Your task to perform on an android device: Open calendar and show me the second week of next month Image 0: 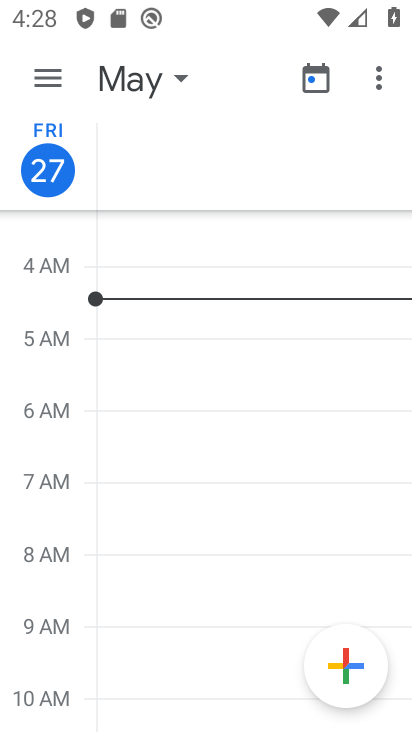
Step 0: press back button
Your task to perform on an android device: Open calendar and show me the second week of next month Image 1: 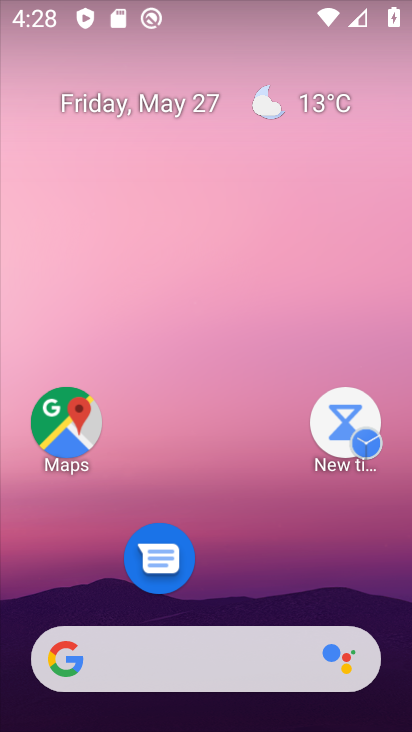
Step 1: drag from (215, 601) to (189, 265)
Your task to perform on an android device: Open calendar and show me the second week of next month Image 2: 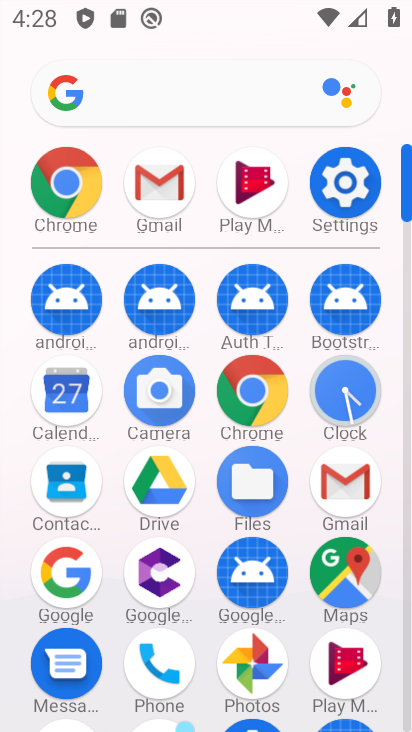
Step 2: click (67, 387)
Your task to perform on an android device: Open calendar and show me the second week of next month Image 3: 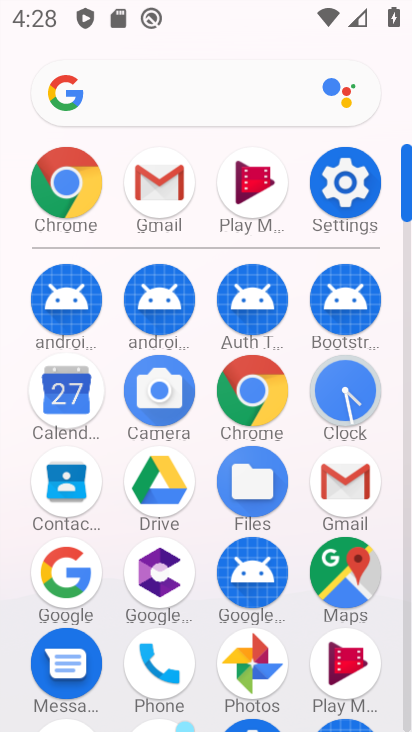
Step 3: click (72, 405)
Your task to perform on an android device: Open calendar and show me the second week of next month Image 4: 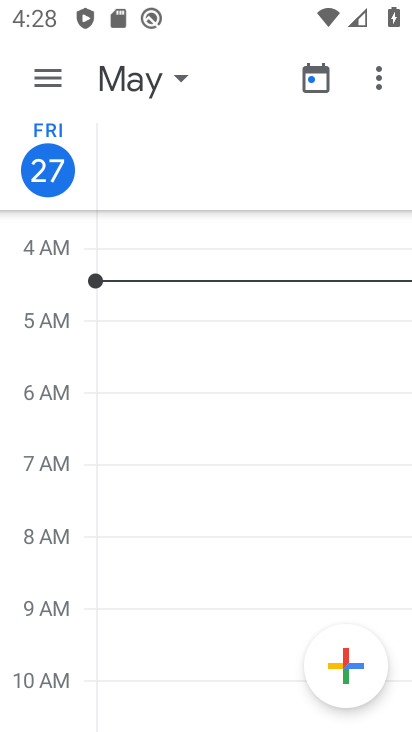
Step 4: click (73, 395)
Your task to perform on an android device: Open calendar and show me the second week of next month Image 5: 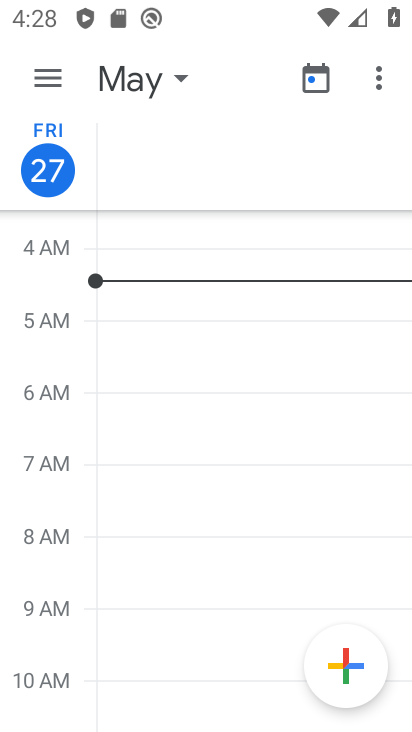
Step 5: click (41, 83)
Your task to perform on an android device: Open calendar and show me the second week of next month Image 6: 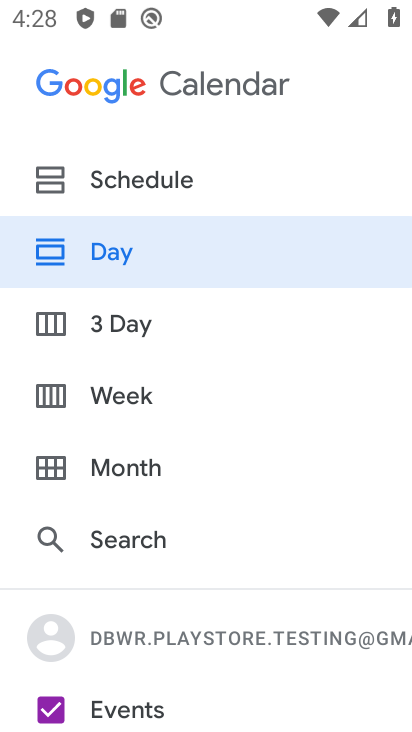
Step 6: click (117, 167)
Your task to perform on an android device: Open calendar and show me the second week of next month Image 7: 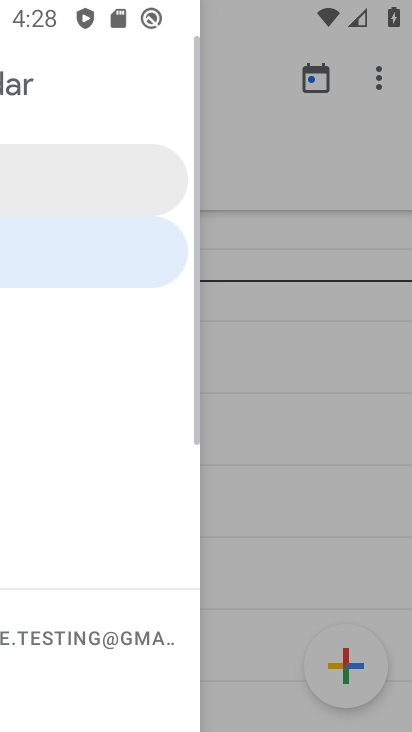
Step 7: click (120, 177)
Your task to perform on an android device: Open calendar and show me the second week of next month Image 8: 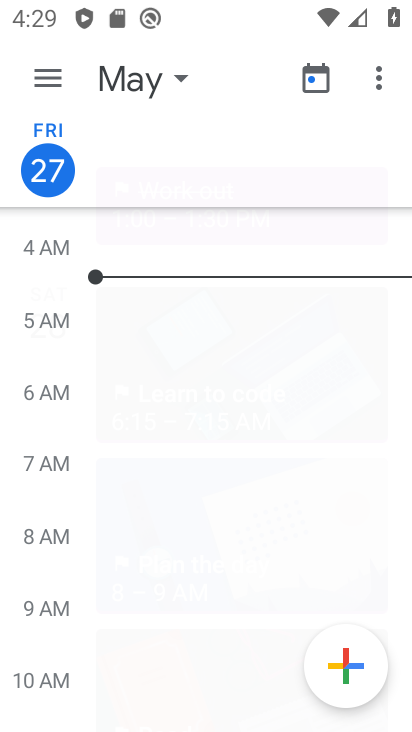
Step 8: click (126, 177)
Your task to perform on an android device: Open calendar and show me the second week of next month Image 9: 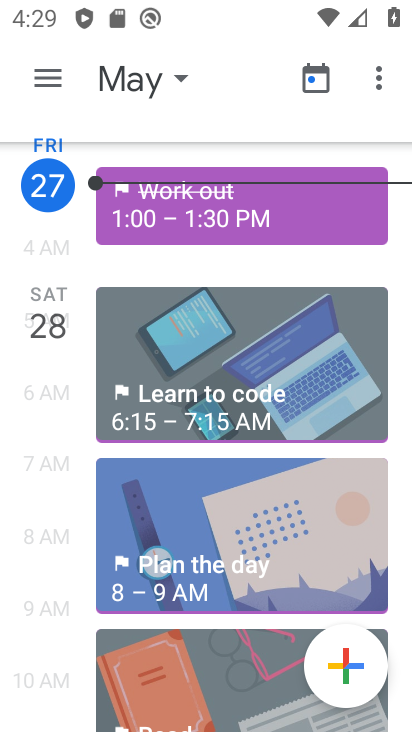
Step 9: click (127, 177)
Your task to perform on an android device: Open calendar and show me the second week of next month Image 10: 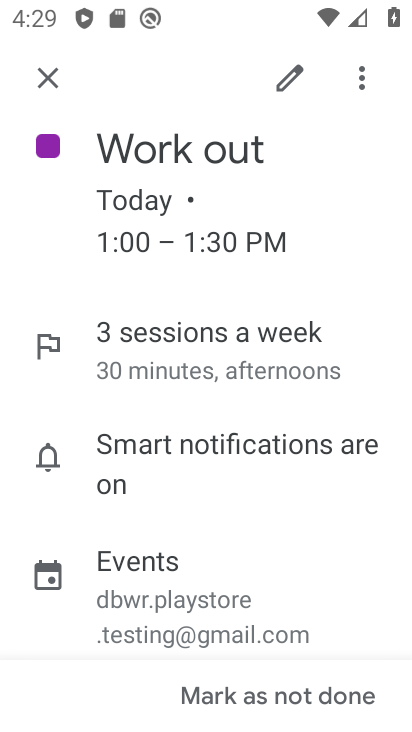
Step 10: click (47, 79)
Your task to perform on an android device: Open calendar and show me the second week of next month Image 11: 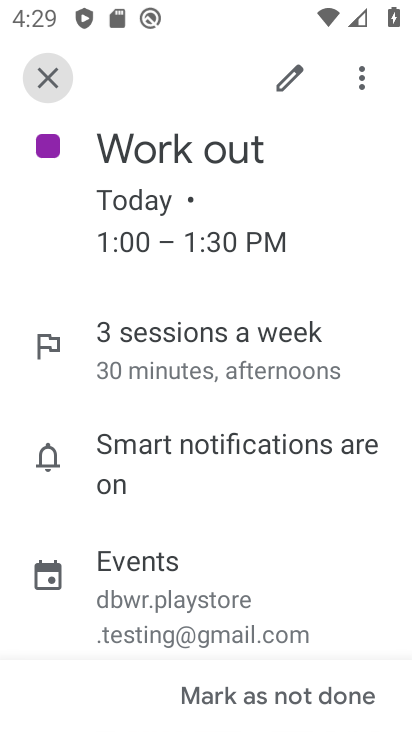
Step 11: click (50, 81)
Your task to perform on an android device: Open calendar and show me the second week of next month Image 12: 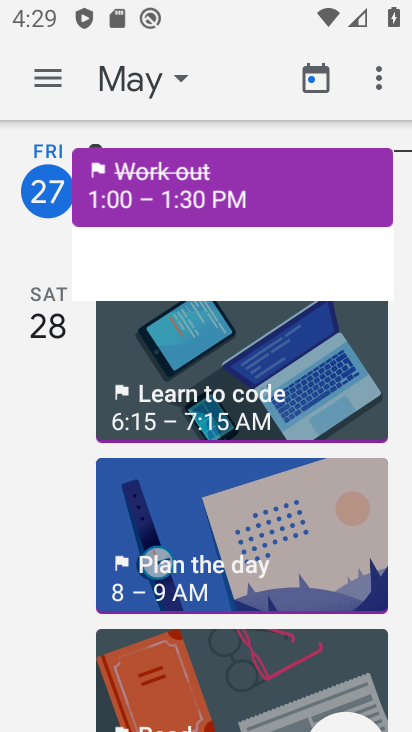
Step 12: click (52, 83)
Your task to perform on an android device: Open calendar and show me the second week of next month Image 13: 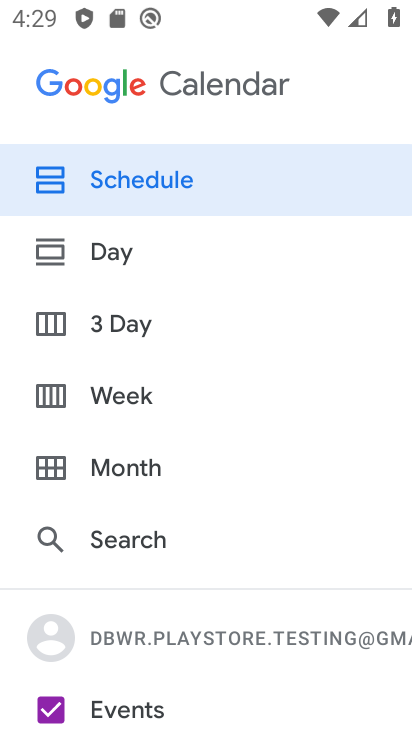
Step 13: press back button
Your task to perform on an android device: Open calendar and show me the second week of next month Image 14: 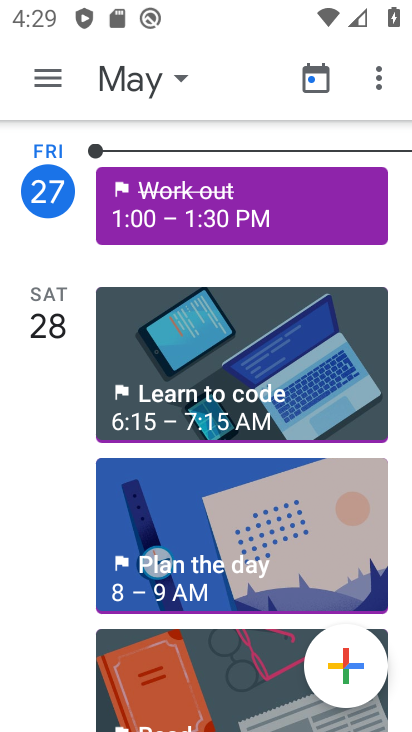
Step 14: click (171, 71)
Your task to perform on an android device: Open calendar and show me the second week of next month Image 15: 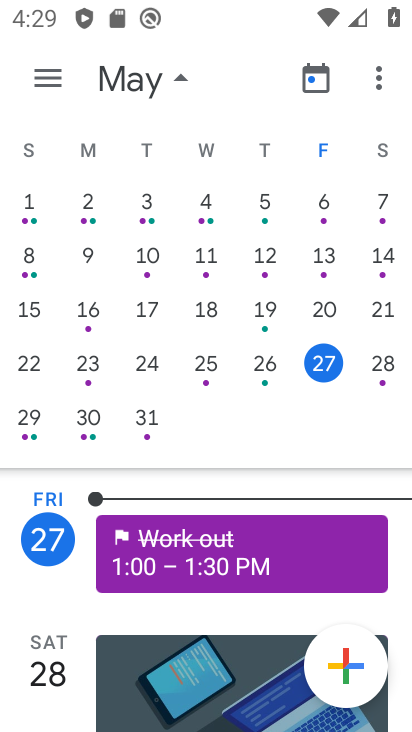
Step 15: drag from (217, 306) to (20, 373)
Your task to perform on an android device: Open calendar and show me the second week of next month Image 16: 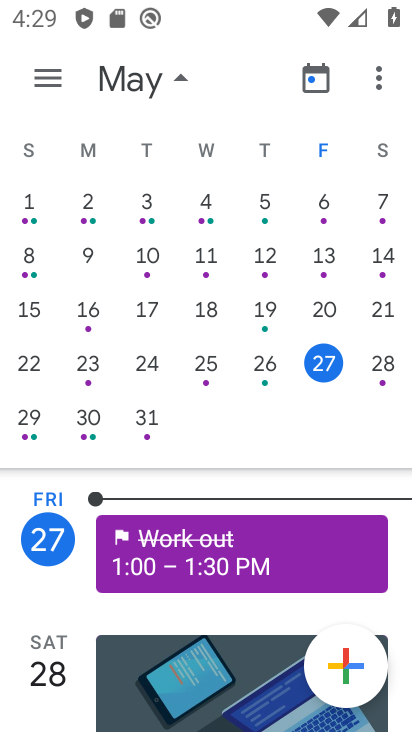
Step 16: drag from (178, 373) to (12, 399)
Your task to perform on an android device: Open calendar and show me the second week of next month Image 17: 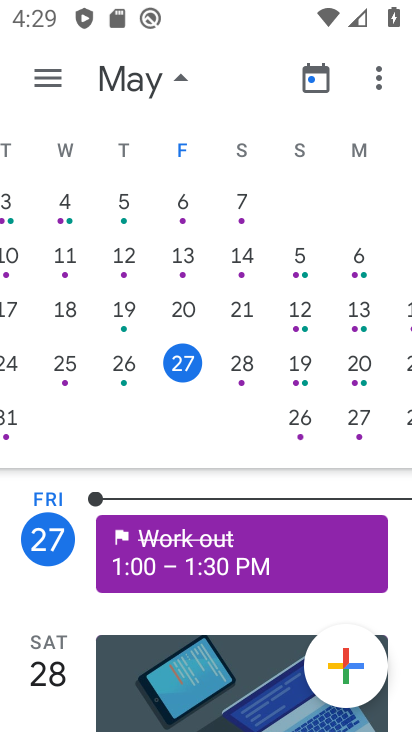
Step 17: drag from (331, 331) to (88, 357)
Your task to perform on an android device: Open calendar and show me the second week of next month Image 18: 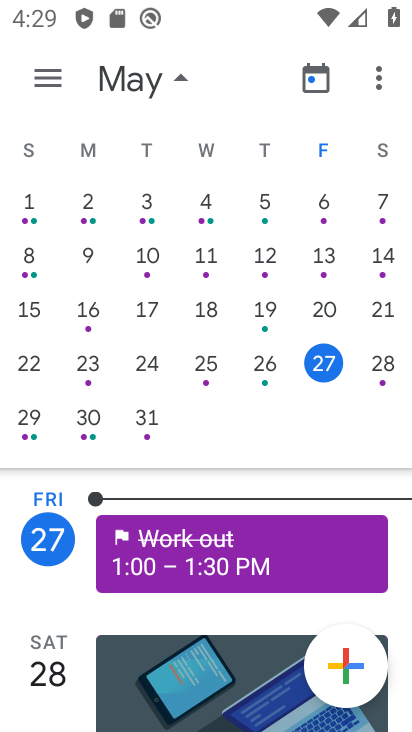
Step 18: drag from (259, 299) to (24, 374)
Your task to perform on an android device: Open calendar and show me the second week of next month Image 19: 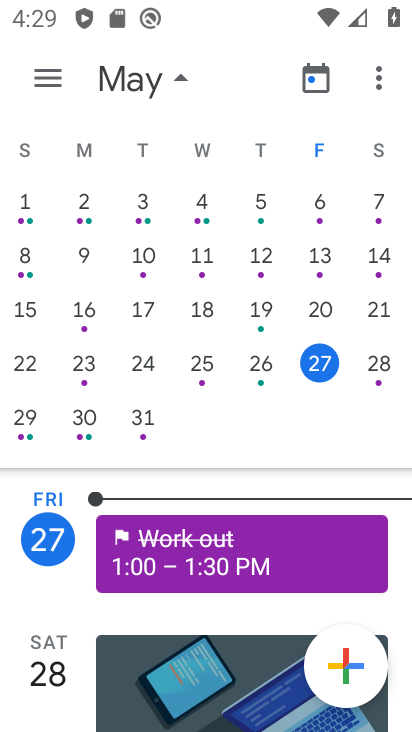
Step 19: drag from (378, 274) to (105, 353)
Your task to perform on an android device: Open calendar and show me the second week of next month Image 20: 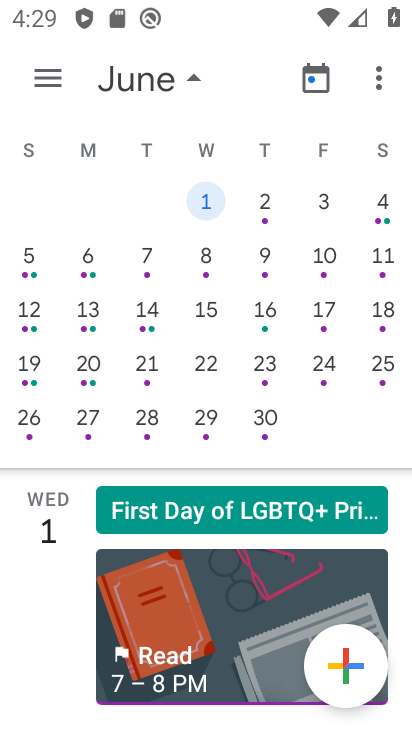
Step 20: click (41, 362)
Your task to perform on an android device: Open calendar and show me the second week of next month Image 21: 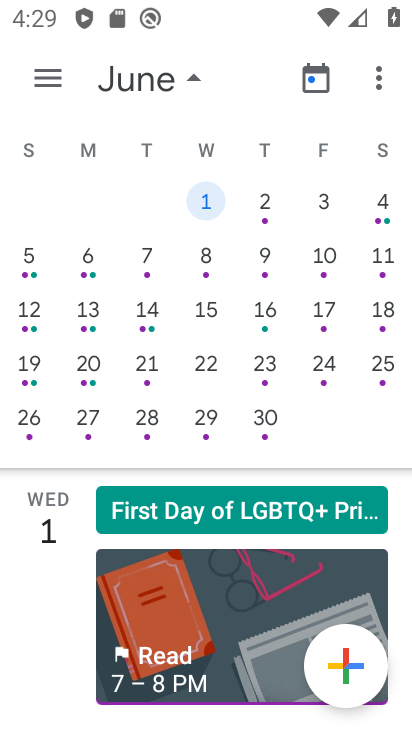
Step 21: drag from (292, 321) to (14, 353)
Your task to perform on an android device: Open calendar and show me the second week of next month Image 22: 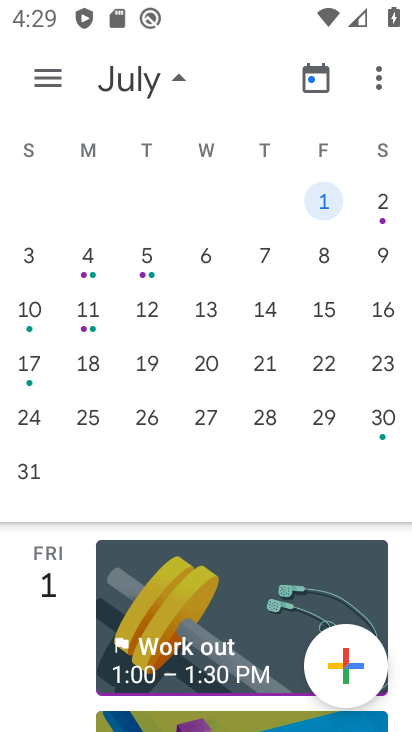
Step 22: drag from (95, 325) to (361, 399)
Your task to perform on an android device: Open calendar and show me the second week of next month Image 23: 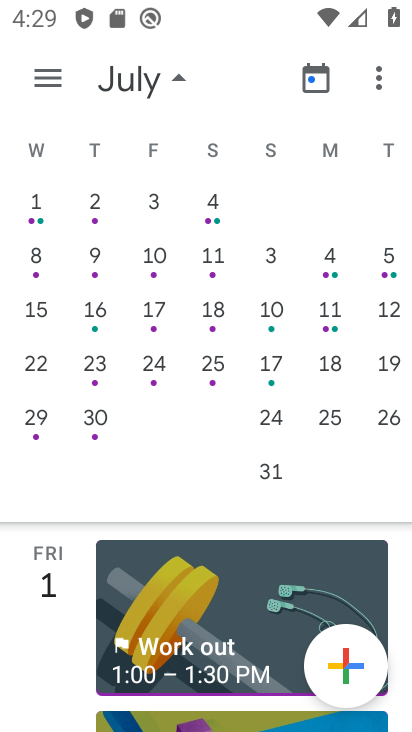
Step 23: drag from (318, 340) to (401, 367)
Your task to perform on an android device: Open calendar and show me the second week of next month Image 24: 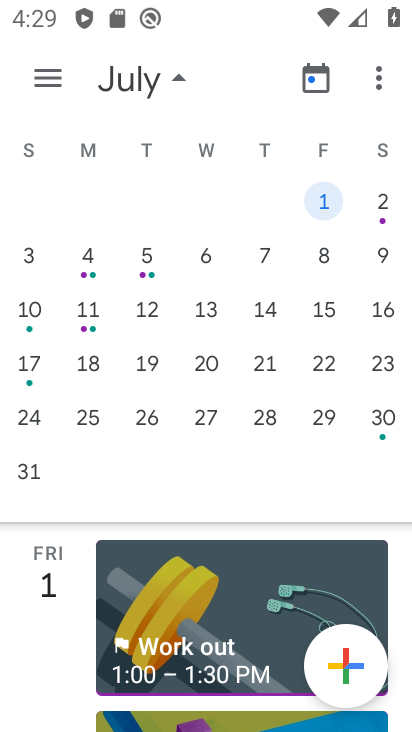
Step 24: drag from (88, 361) to (314, 349)
Your task to perform on an android device: Open calendar and show me the second week of next month Image 25: 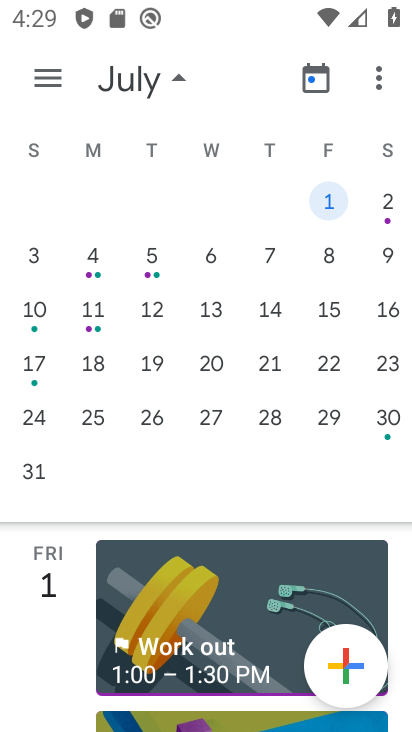
Step 25: drag from (108, 358) to (387, 442)
Your task to perform on an android device: Open calendar and show me the second week of next month Image 26: 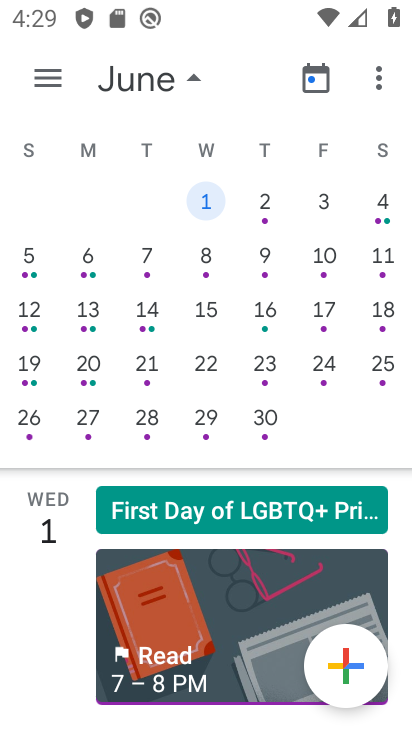
Step 26: drag from (135, 355) to (394, 346)
Your task to perform on an android device: Open calendar and show me the second week of next month Image 27: 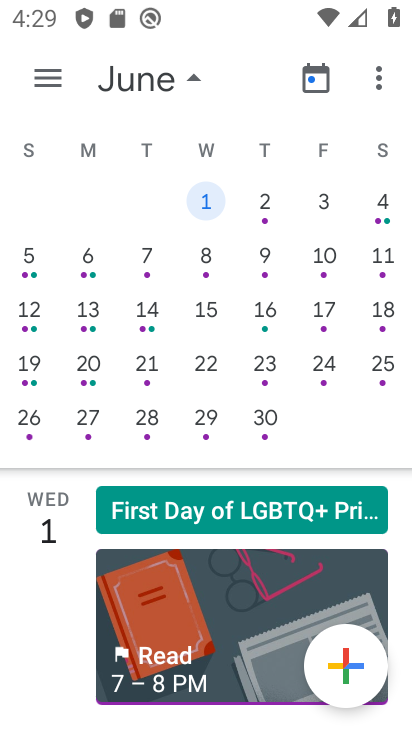
Step 27: drag from (277, 366) to (401, 374)
Your task to perform on an android device: Open calendar and show me the second week of next month Image 28: 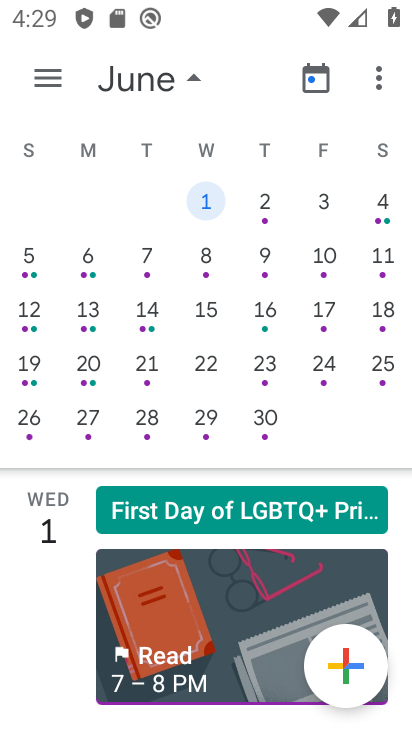
Step 28: click (191, 260)
Your task to perform on an android device: Open calendar and show me the second week of next month Image 29: 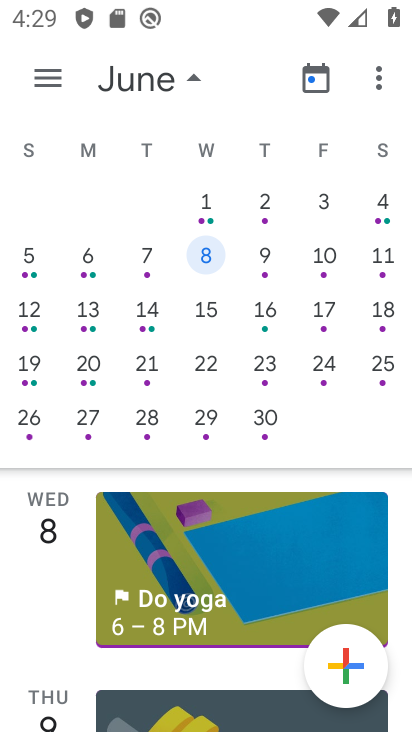
Step 29: click (194, 251)
Your task to perform on an android device: Open calendar and show me the second week of next month Image 30: 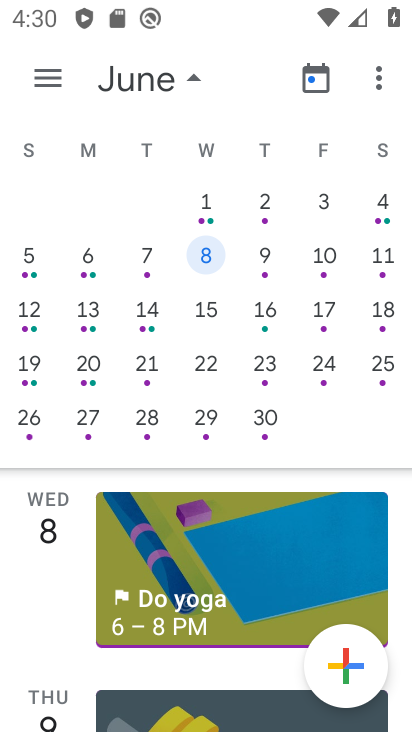
Step 30: task complete